Your task to perform on an android device: toggle translation in the chrome app Image 0: 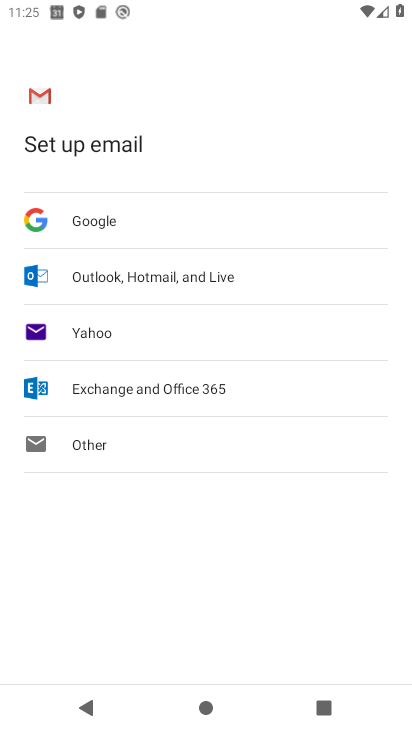
Step 0: press home button
Your task to perform on an android device: toggle translation in the chrome app Image 1: 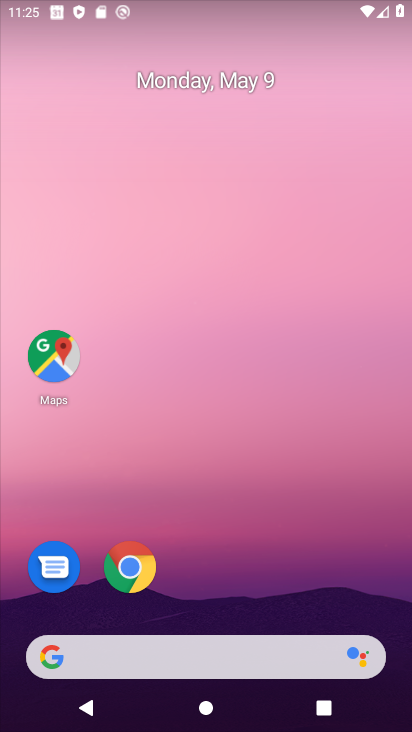
Step 1: drag from (370, 618) to (261, 3)
Your task to perform on an android device: toggle translation in the chrome app Image 2: 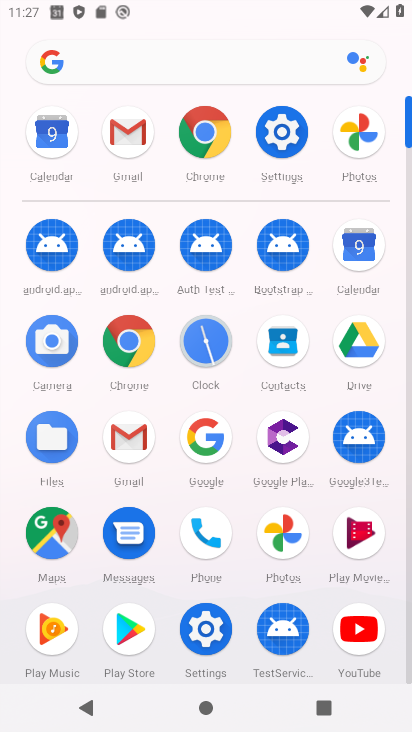
Step 2: click (195, 141)
Your task to perform on an android device: toggle translation in the chrome app Image 3: 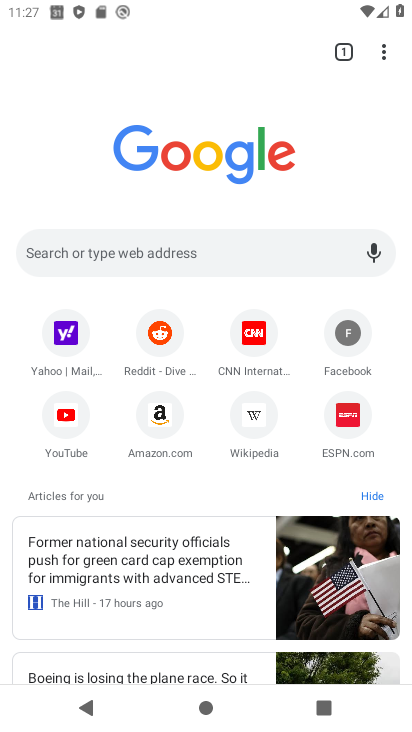
Step 3: click (379, 48)
Your task to perform on an android device: toggle translation in the chrome app Image 4: 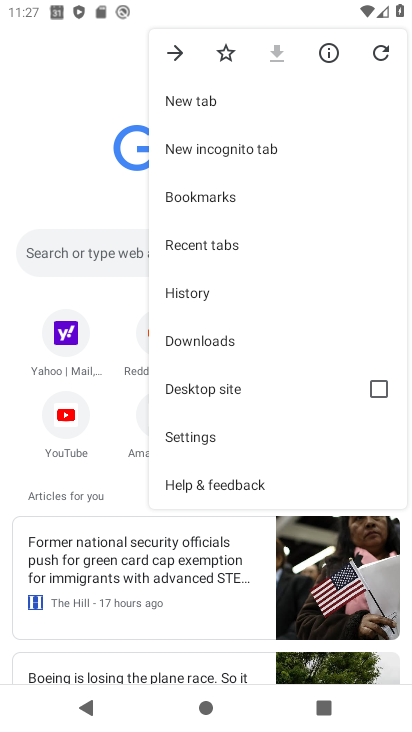
Step 4: click (222, 436)
Your task to perform on an android device: toggle translation in the chrome app Image 5: 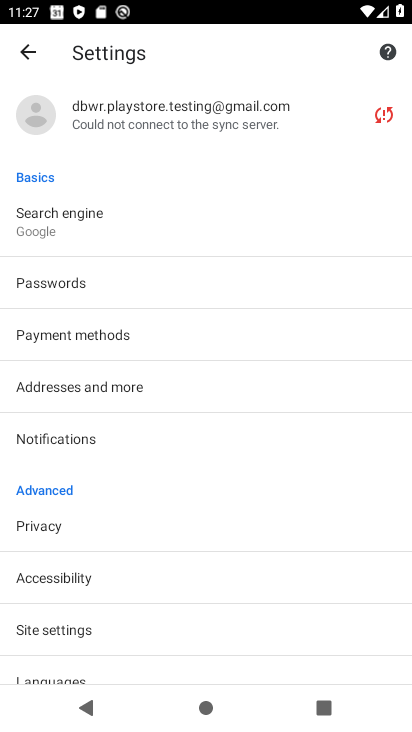
Step 5: click (125, 671)
Your task to perform on an android device: toggle translation in the chrome app Image 6: 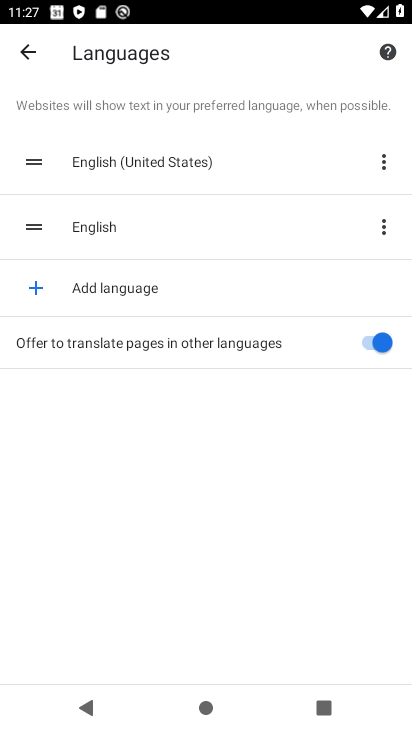
Step 6: click (315, 339)
Your task to perform on an android device: toggle translation in the chrome app Image 7: 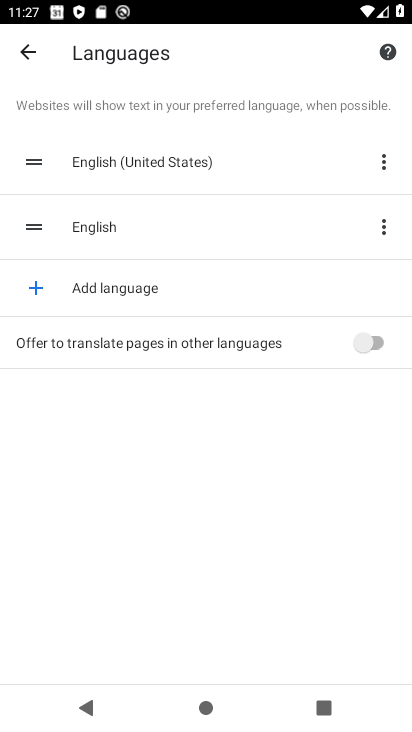
Step 7: task complete